Your task to perform on an android device: Show the shopping cart on newegg.com. Search for "razer kraken" on newegg.com, select the first entry, and add it to the cart. Image 0: 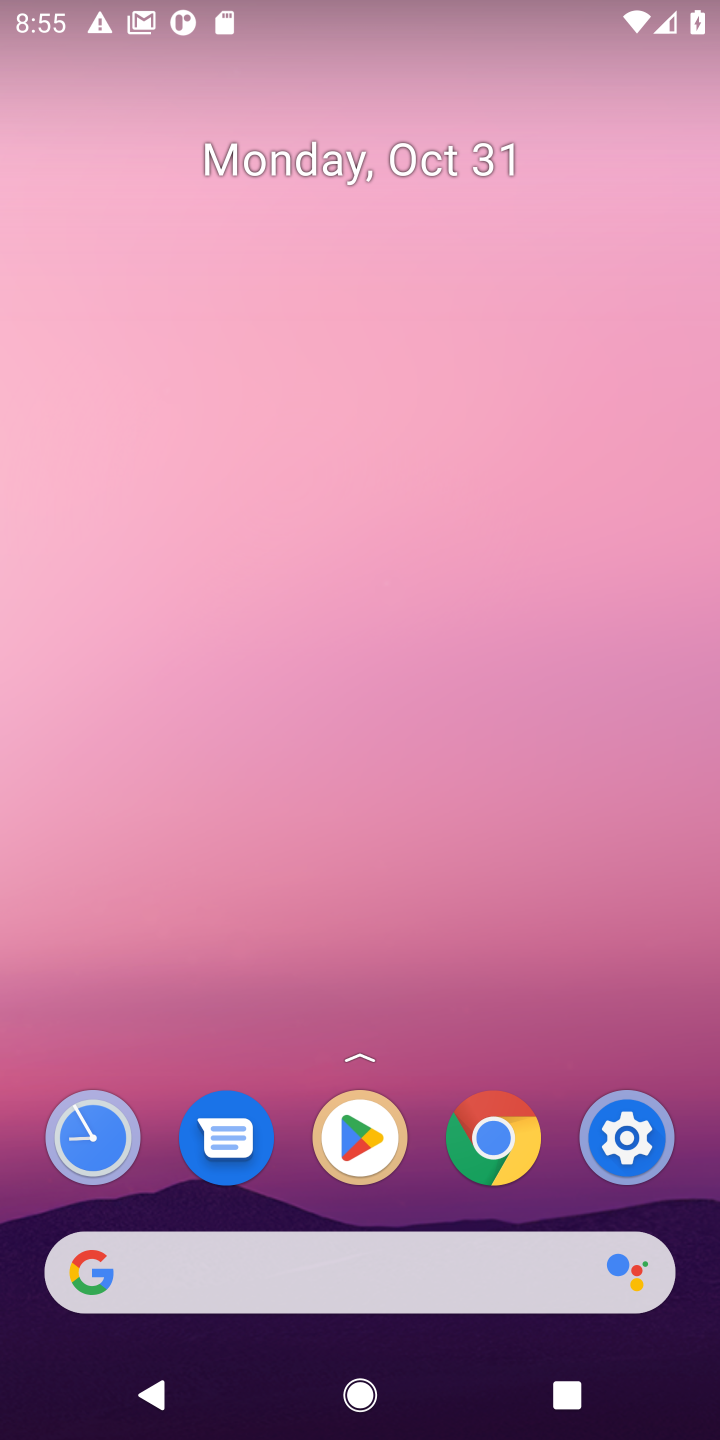
Step 0: drag from (479, 1350) to (603, 111)
Your task to perform on an android device: Show the shopping cart on newegg.com. Search for "razer kraken" on newegg.com, select the first entry, and add it to the cart. Image 1: 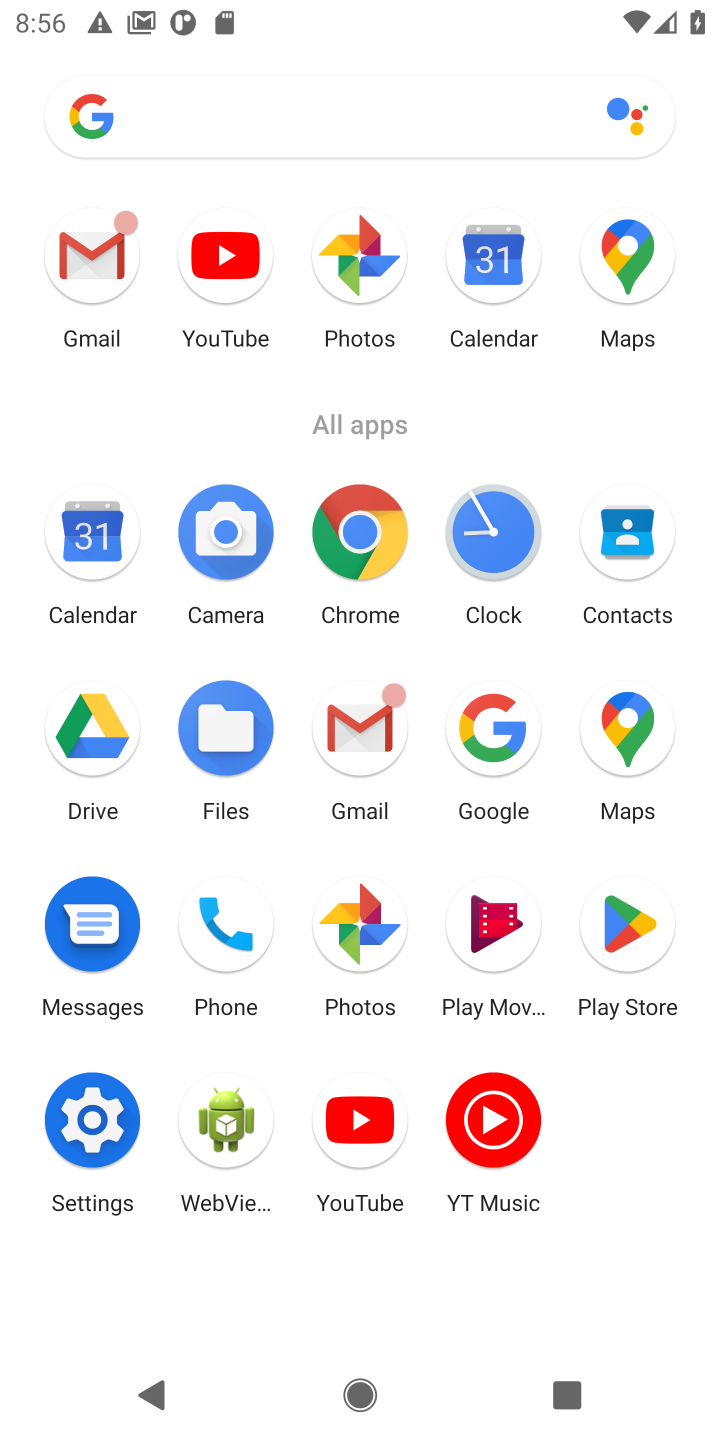
Step 1: click (354, 516)
Your task to perform on an android device: Show the shopping cart on newegg.com. Search for "razer kraken" on newegg.com, select the first entry, and add it to the cart. Image 2: 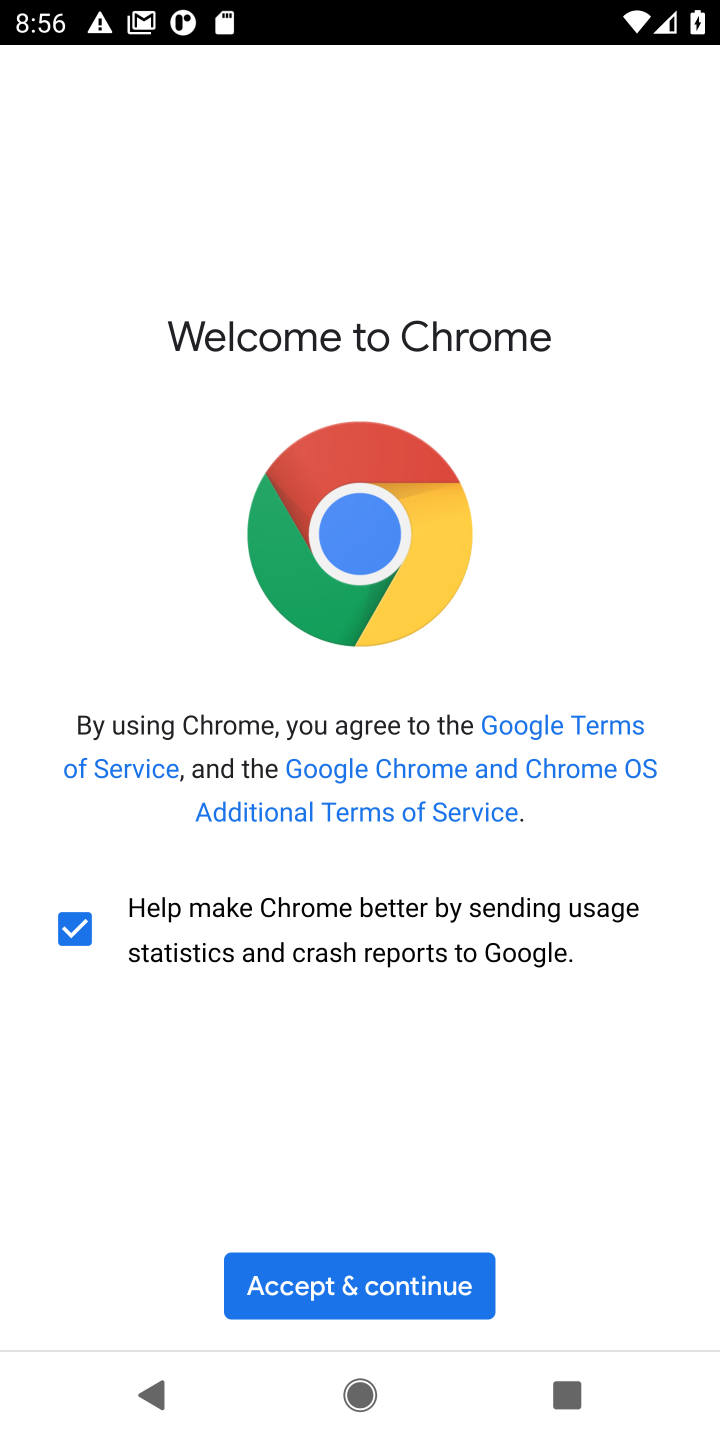
Step 2: click (312, 1284)
Your task to perform on an android device: Show the shopping cart on newegg.com. Search for "razer kraken" on newegg.com, select the first entry, and add it to the cart. Image 3: 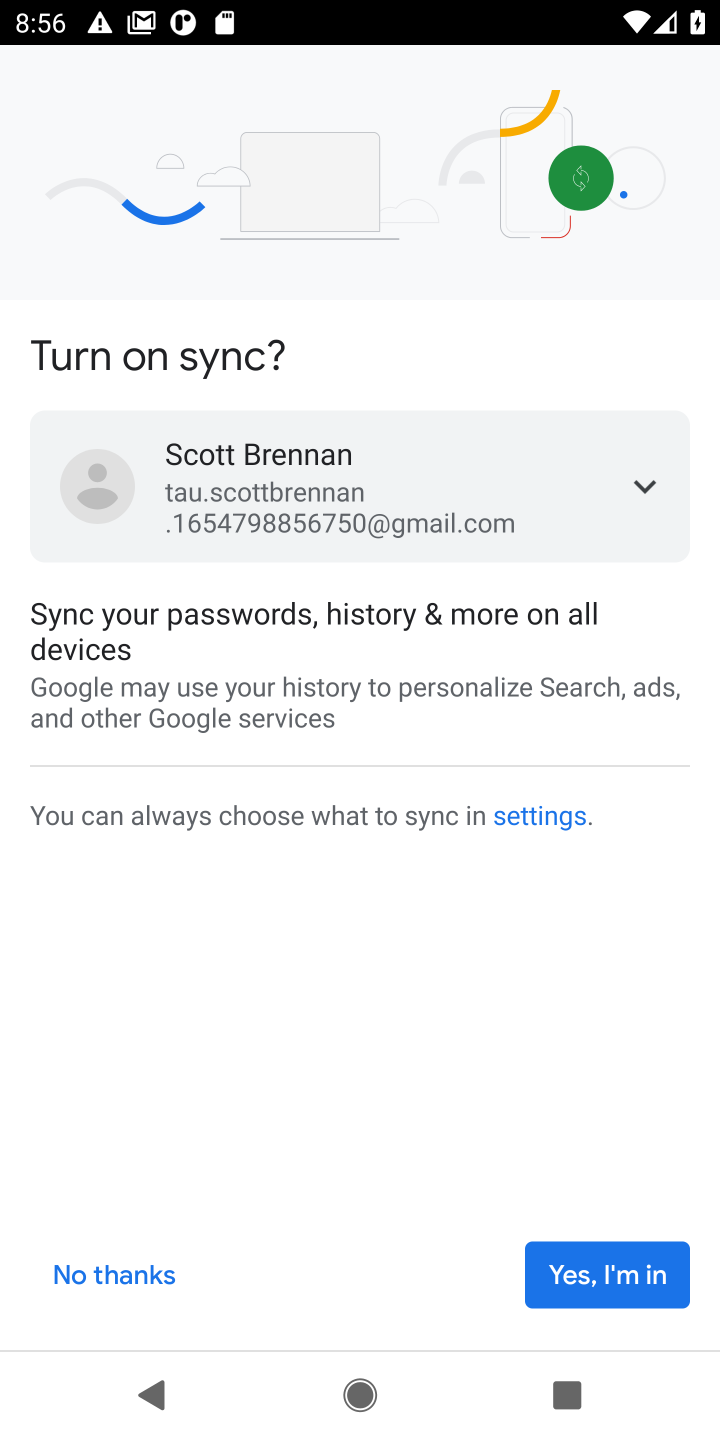
Step 3: click (571, 1269)
Your task to perform on an android device: Show the shopping cart on newegg.com. Search for "razer kraken" on newegg.com, select the first entry, and add it to the cart. Image 4: 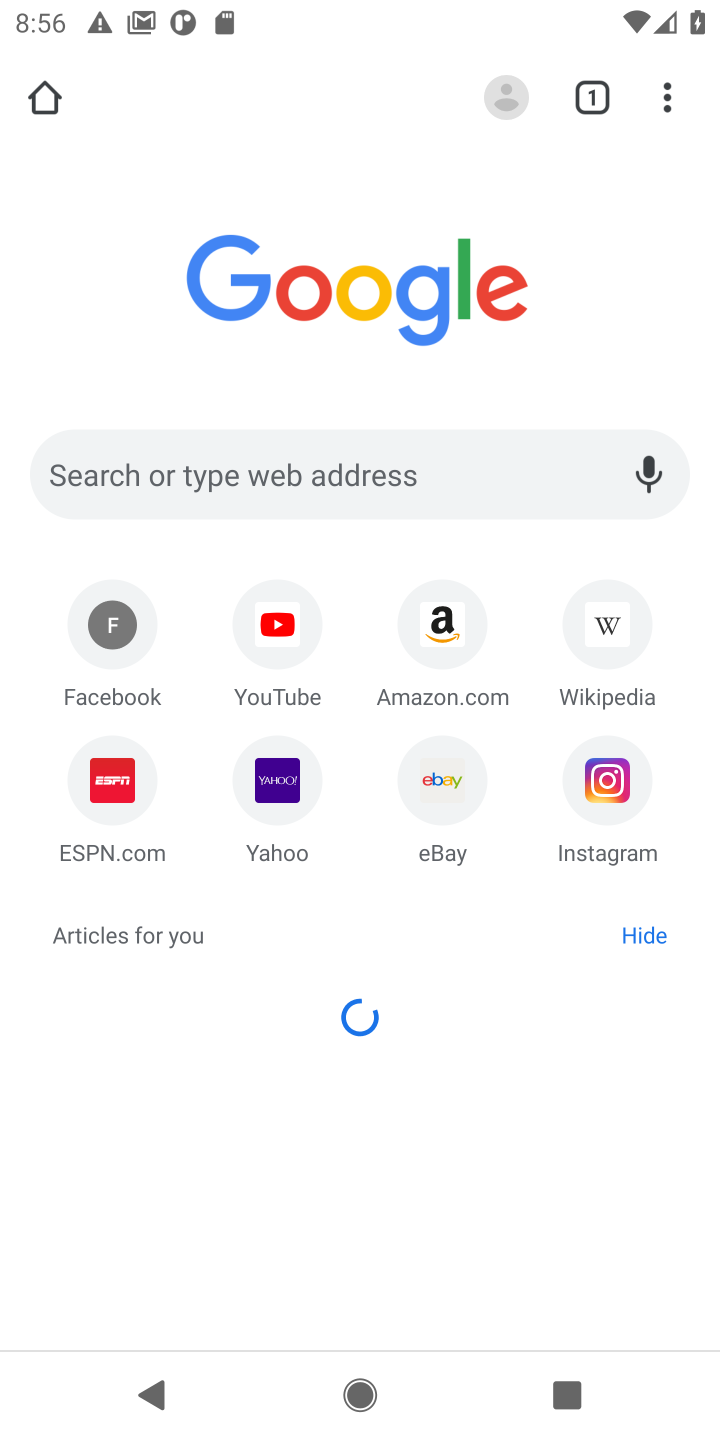
Step 4: click (266, 485)
Your task to perform on an android device: Show the shopping cart on newegg.com. Search for "razer kraken" on newegg.com, select the first entry, and add it to the cart. Image 5: 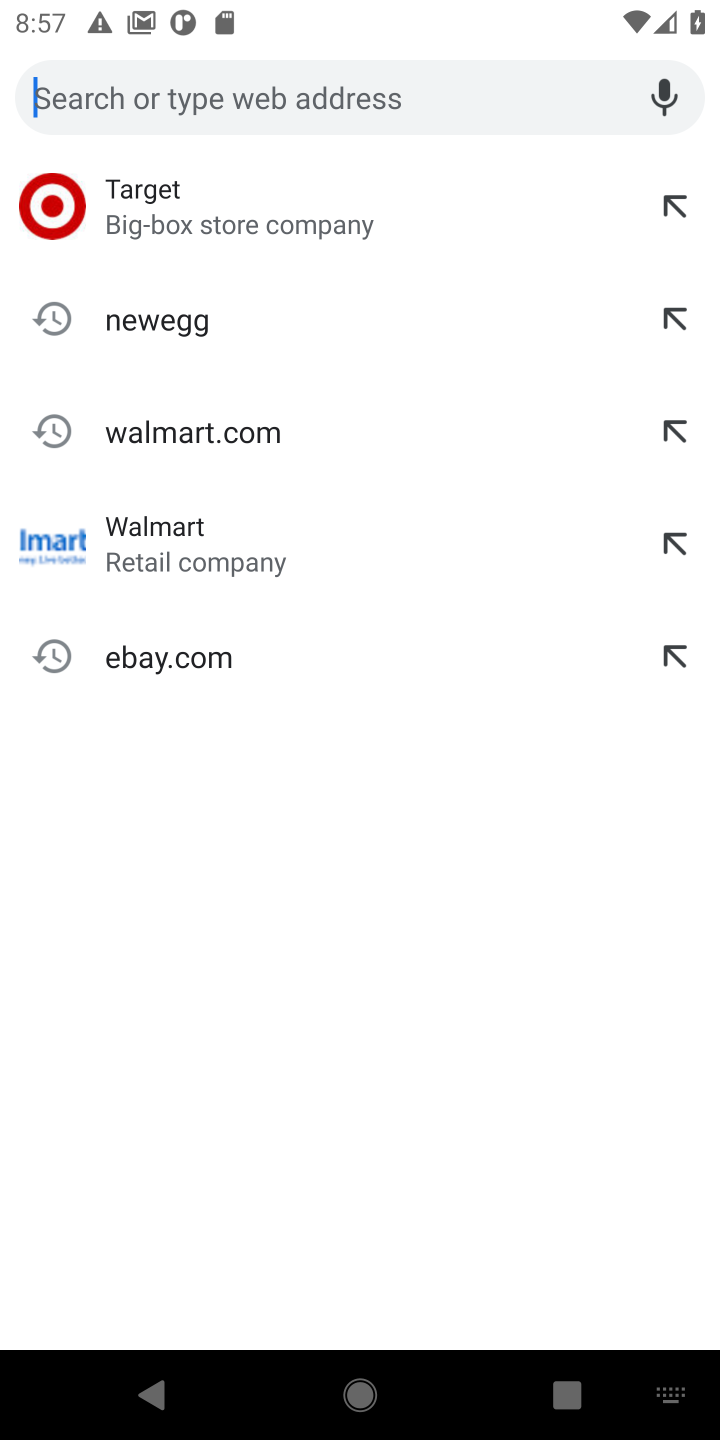
Step 5: type " newegg.com"
Your task to perform on an android device: Show the shopping cart on newegg.com. Search for "razer kraken" on newegg.com, select the first entry, and add it to the cart. Image 6: 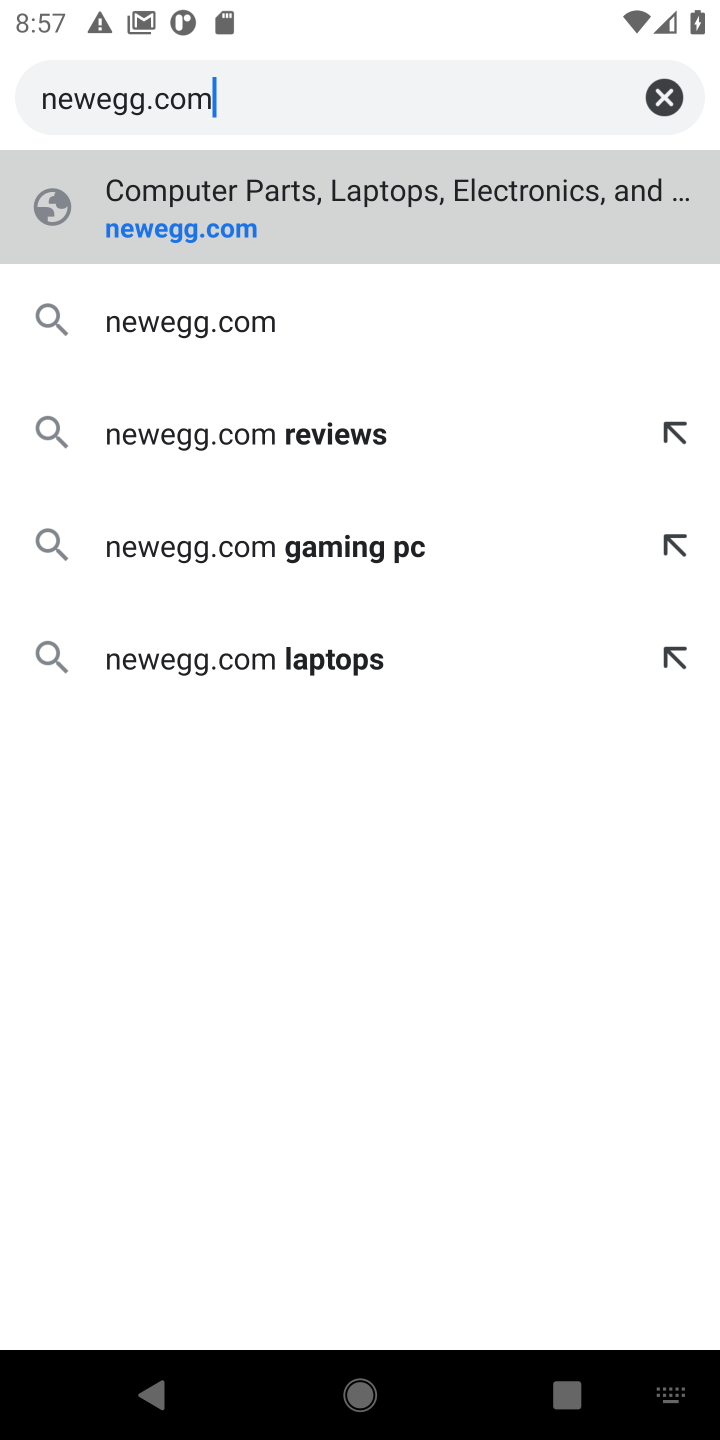
Step 6: click (222, 220)
Your task to perform on an android device: Show the shopping cart on newegg.com. Search for "razer kraken" on newegg.com, select the first entry, and add it to the cart. Image 7: 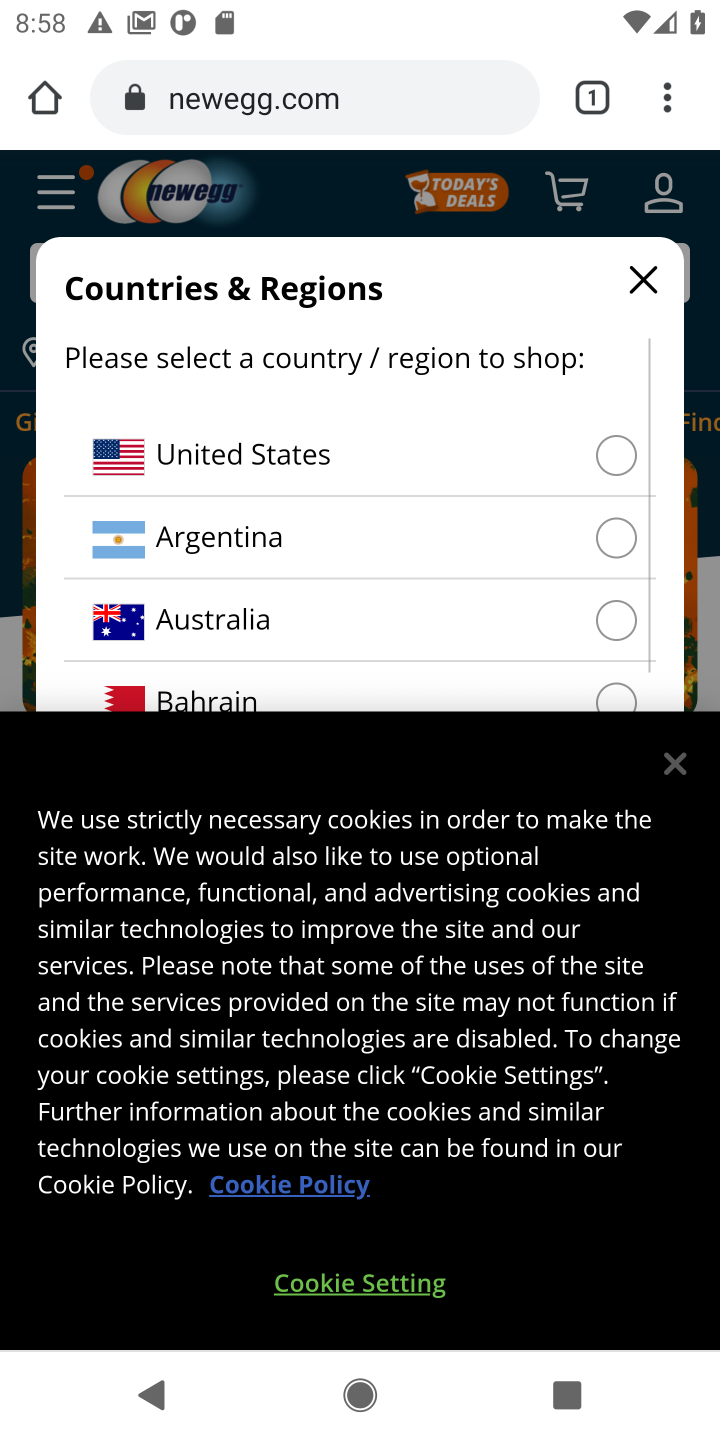
Step 7: click (640, 270)
Your task to perform on an android device: Show the shopping cart on newegg.com. Search for "razer kraken" on newegg.com, select the first entry, and add it to the cart. Image 8: 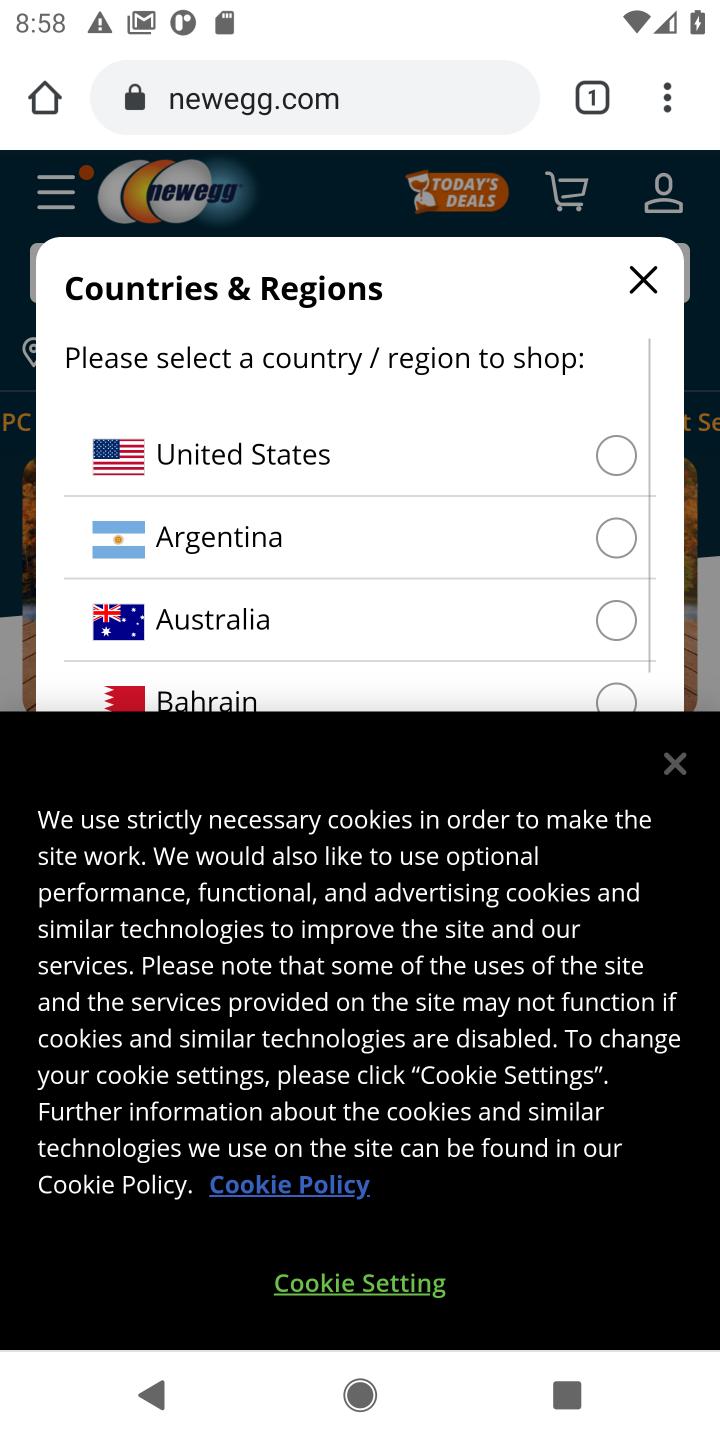
Step 8: click (672, 764)
Your task to perform on an android device: Show the shopping cart on newegg.com. Search for "razer kraken" on newegg.com, select the first entry, and add it to the cart. Image 9: 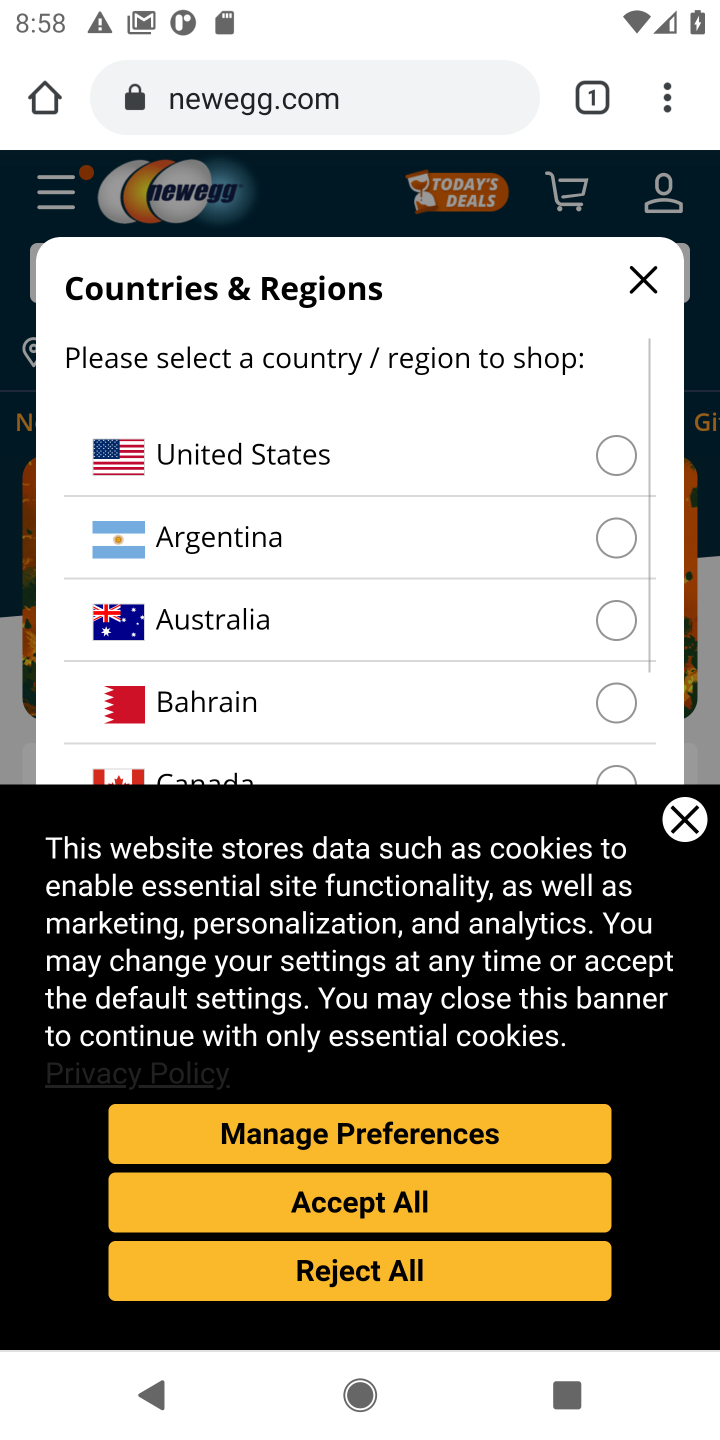
Step 9: click (636, 265)
Your task to perform on an android device: Show the shopping cart on newegg.com. Search for "razer kraken" on newegg.com, select the first entry, and add it to the cart. Image 10: 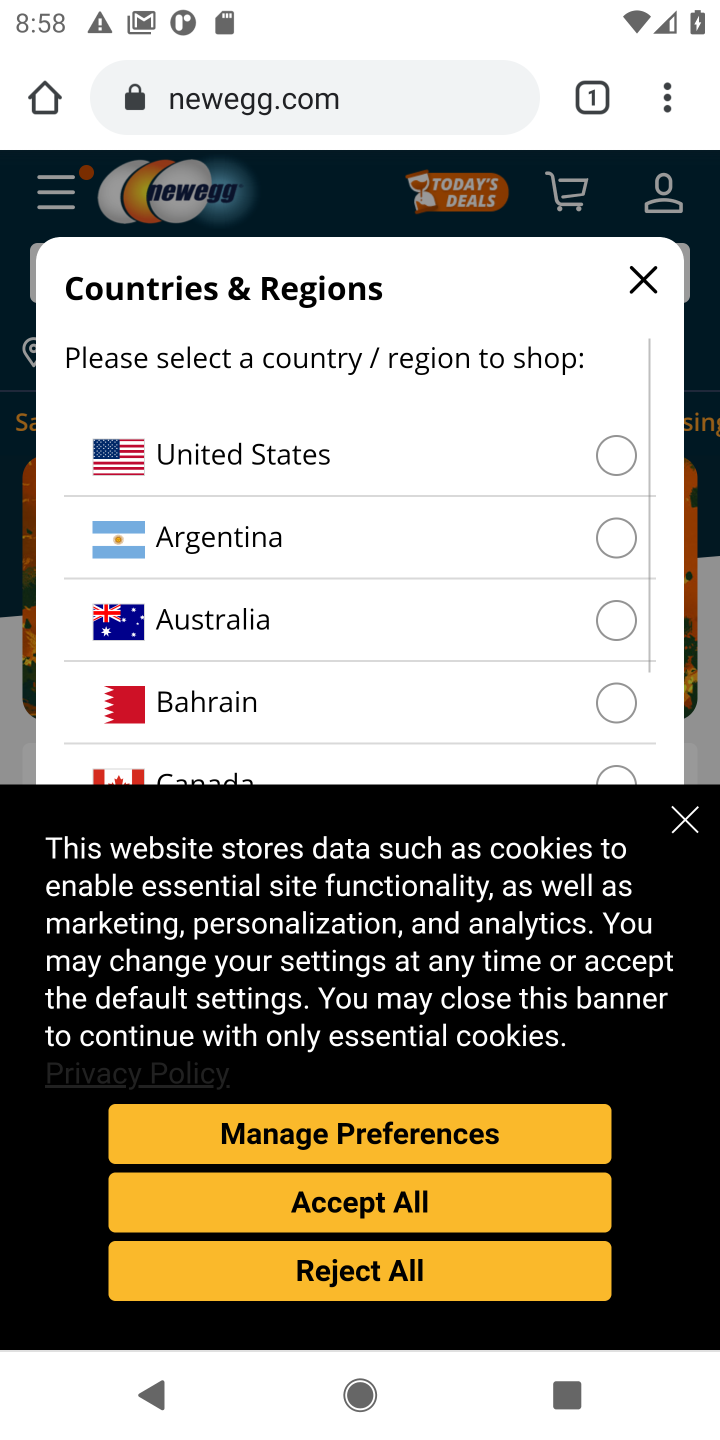
Step 10: click (636, 265)
Your task to perform on an android device: Show the shopping cart on newegg.com. Search for "razer kraken" on newegg.com, select the first entry, and add it to the cart. Image 11: 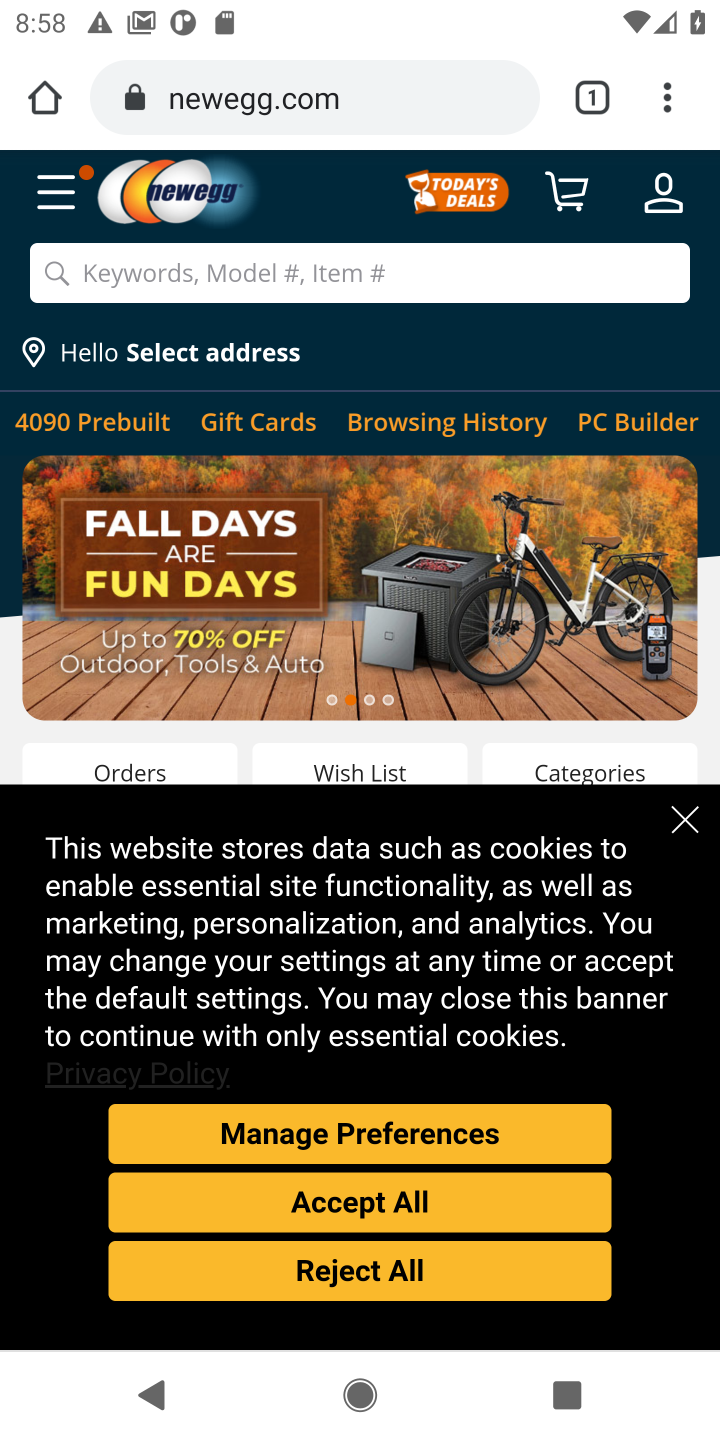
Step 11: click (677, 817)
Your task to perform on an android device: Show the shopping cart on newegg.com. Search for "razer kraken" on newegg.com, select the first entry, and add it to the cart. Image 12: 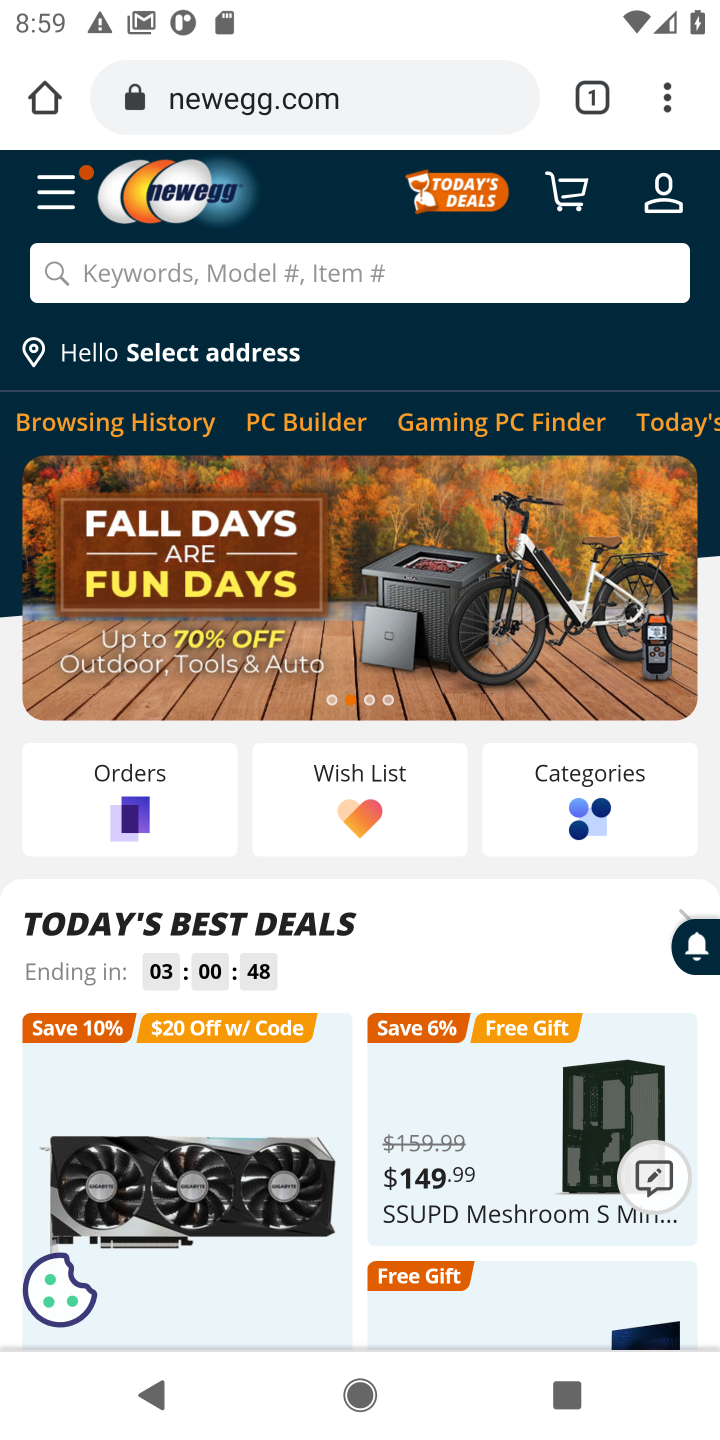
Step 12: click (279, 274)
Your task to perform on an android device: Show the shopping cart on newegg.com. Search for "razer kraken" on newegg.com, select the first entry, and add it to the cart. Image 13: 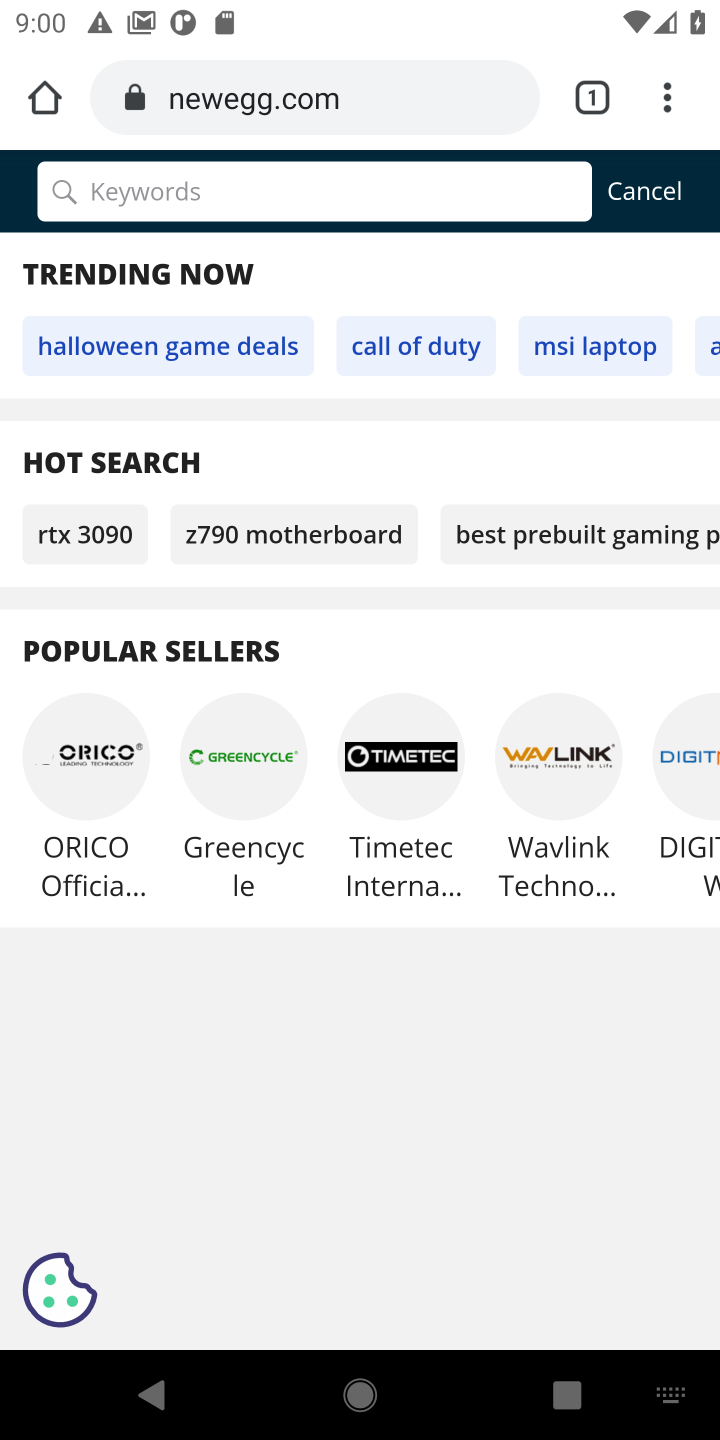
Step 13: type "razer kraken"
Your task to perform on an android device: Show the shopping cart on newegg.com. Search for "razer kraken" on newegg.com, select the first entry, and add it to the cart. Image 14: 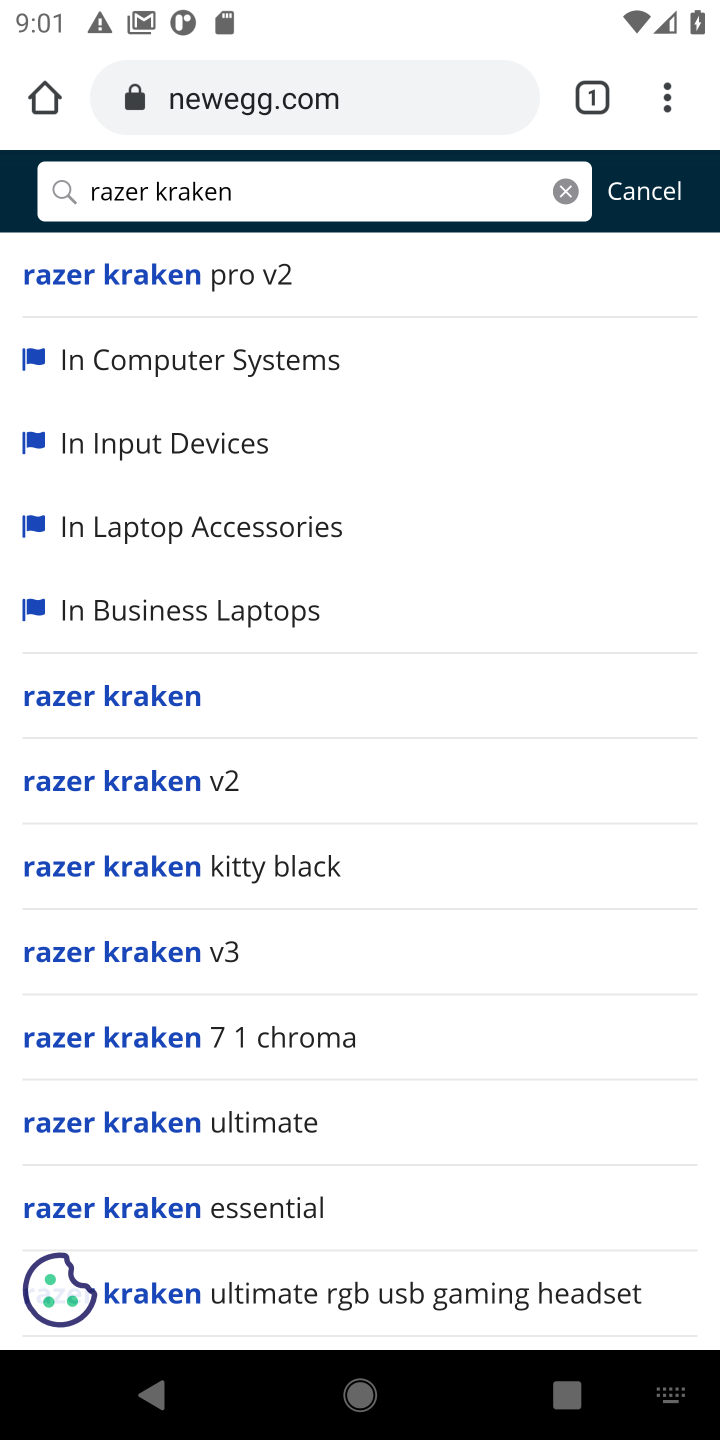
Step 14: click (62, 698)
Your task to perform on an android device: Show the shopping cart on newegg.com. Search for "razer kraken" on newegg.com, select the first entry, and add it to the cart. Image 15: 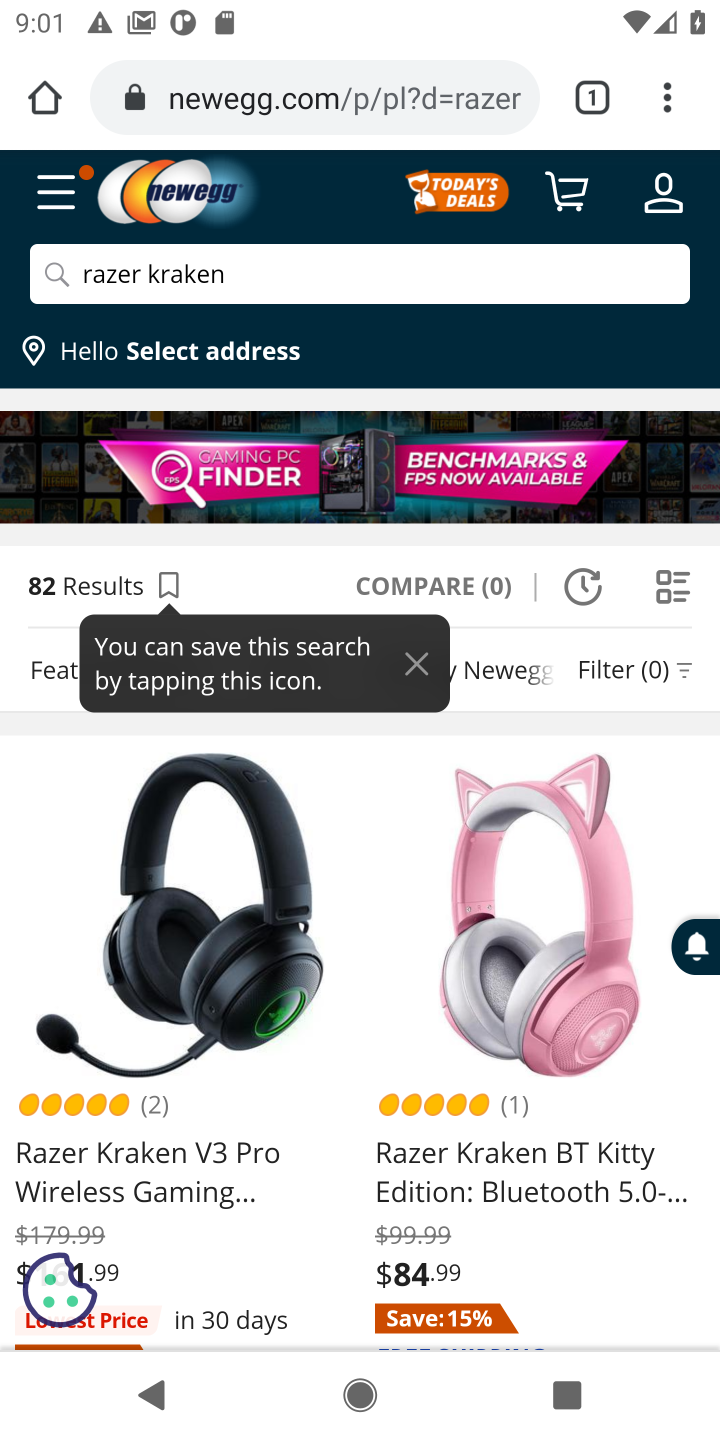
Step 15: click (231, 899)
Your task to perform on an android device: Show the shopping cart on newegg.com. Search for "razer kraken" on newegg.com, select the first entry, and add it to the cart. Image 16: 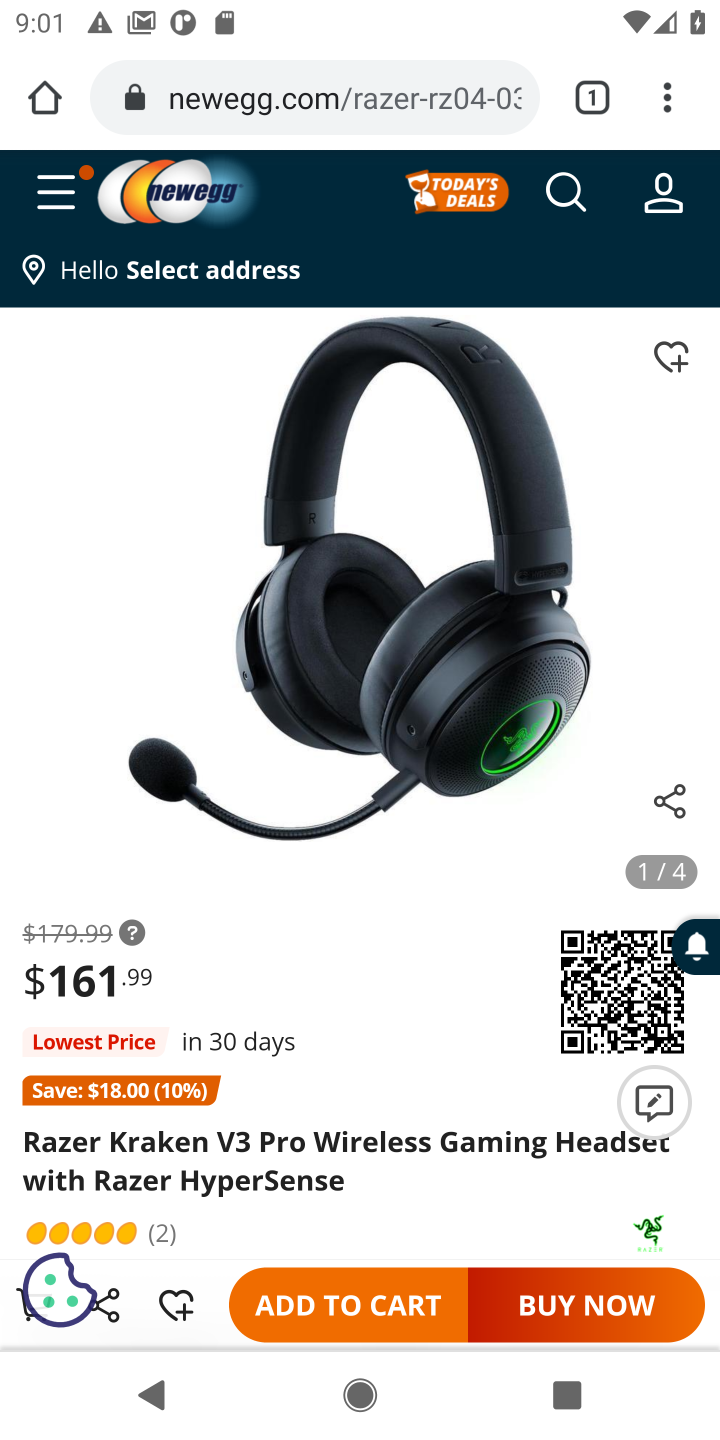
Step 16: click (367, 1302)
Your task to perform on an android device: Show the shopping cart on newegg.com. Search for "razer kraken" on newegg.com, select the first entry, and add it to the cart. Image 17: 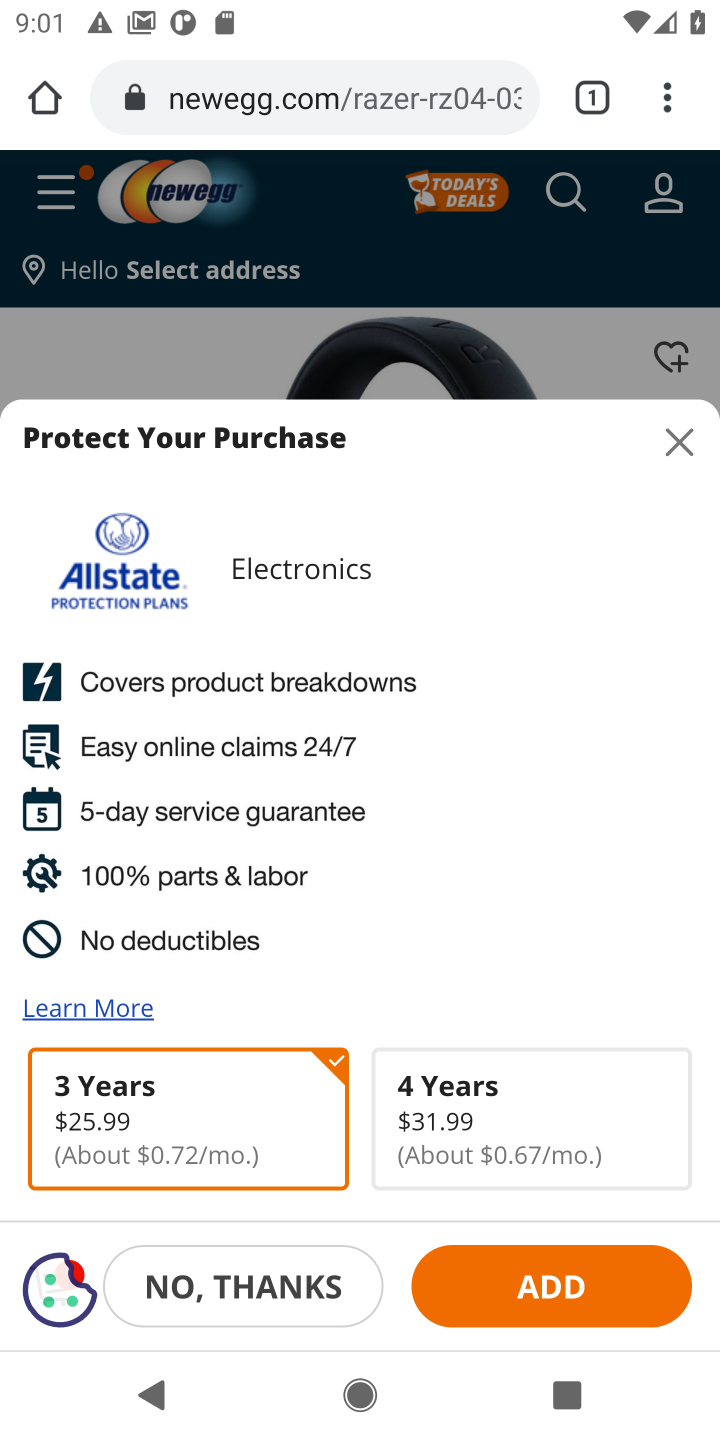
Step 17: task complete